Your task to perform on an android device: Open Google Chrome and open the bookmarks view Image 0: 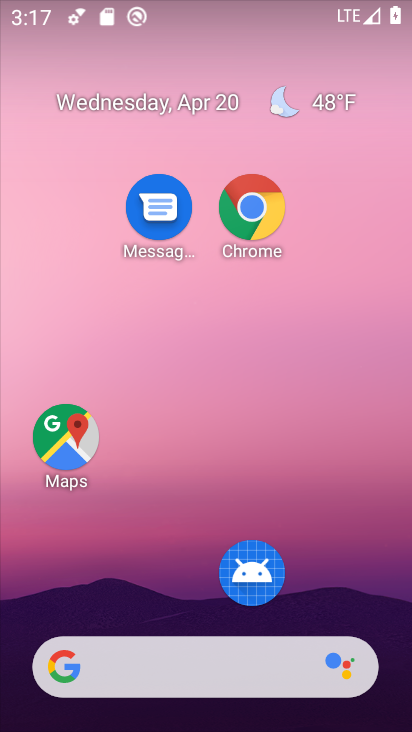
Step 0: click (258, 213)
Your task to perform on an android device: Open Google Chrome and open the bookmarks view Image 1: 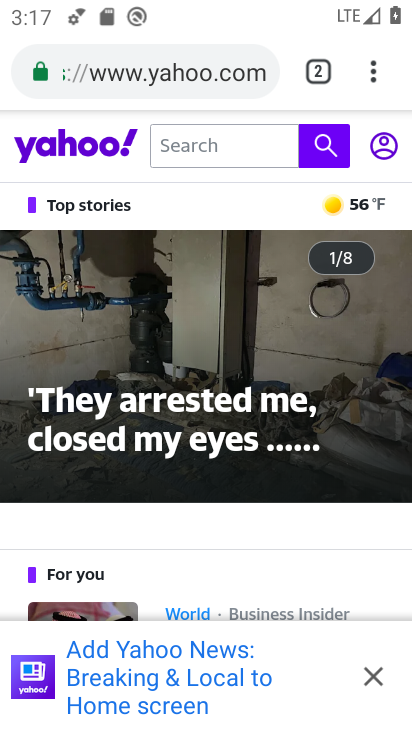
Step 1: click (373, 81)
Your task to perform on an android device: Open Google Chrome and open the bookmarks view Image 2: 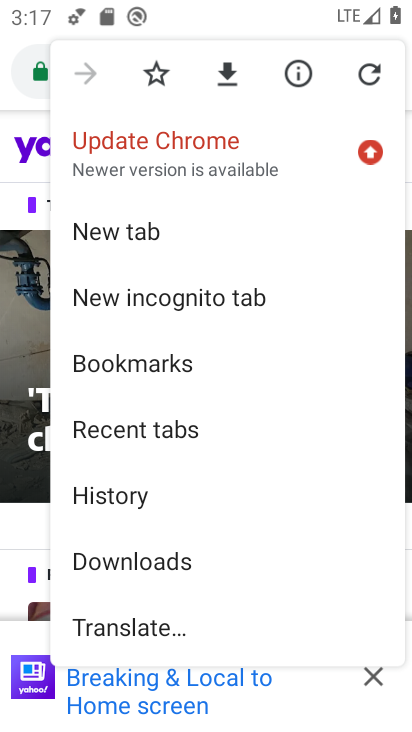
Step 2: click (167, 364)
Your task to perform on an android device: Open Google Chrome and open the bookmarks view Image 3: 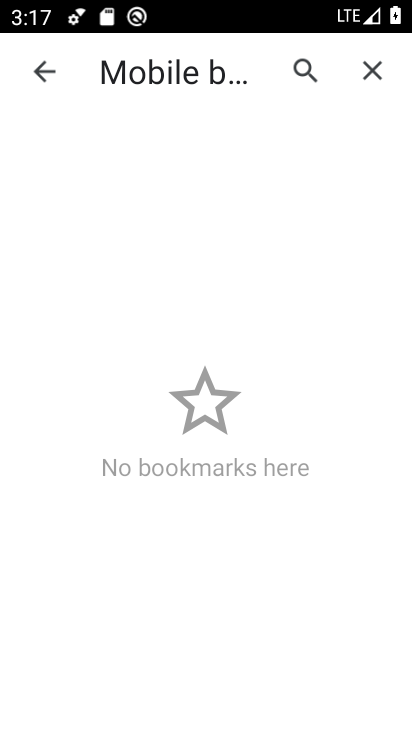
Step 3: task complete